Your task to perform on an android device: Go to internet settings Image 0: 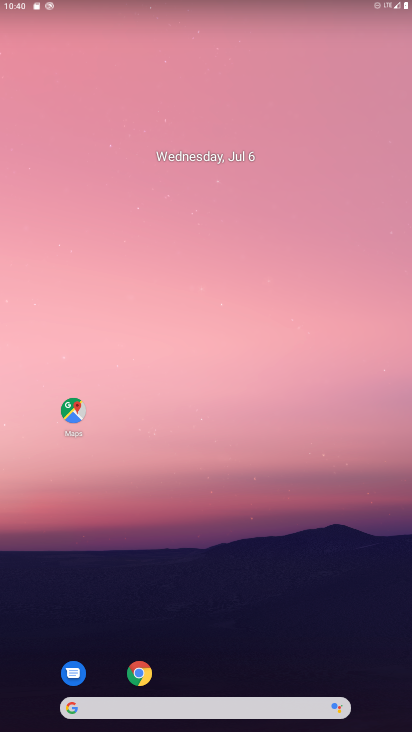
Step 0: drag from (267, 7) to (261, 561)
Your task to perform on an android device: Go to internet settings Image 1: 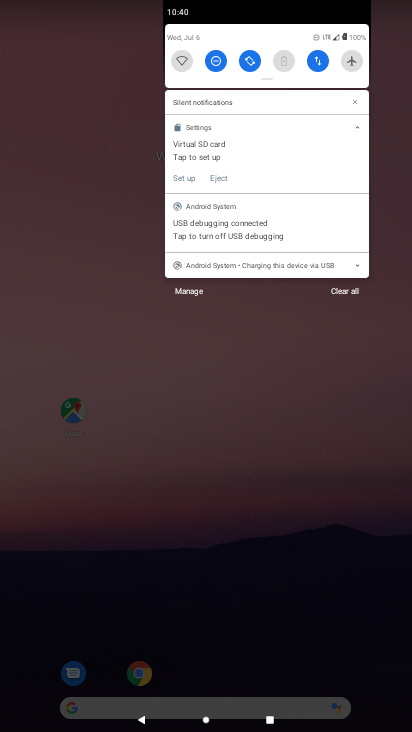
Step 1: click (317, 65)
Your task to perform on an android device: Go to internet settings Image 2: 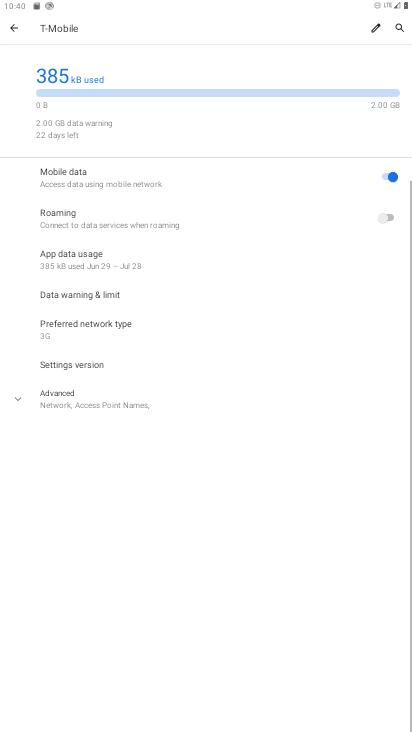
Step 2: task complete